Your task to perform on an android device: open wifi settings Image 0: 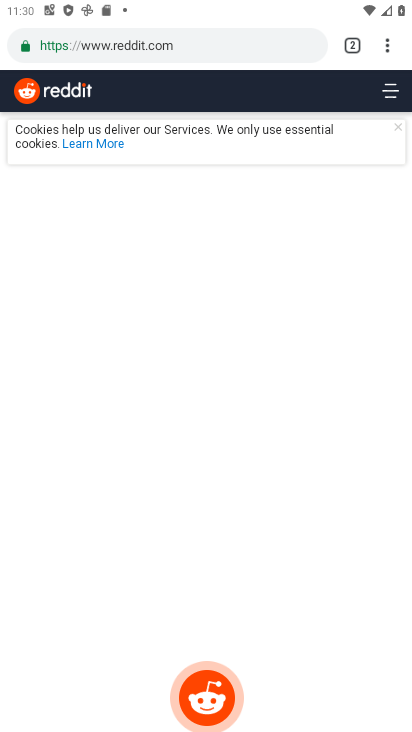
Step 0: press home button
Your task to perform on an android device: open wifi settings Image 1: 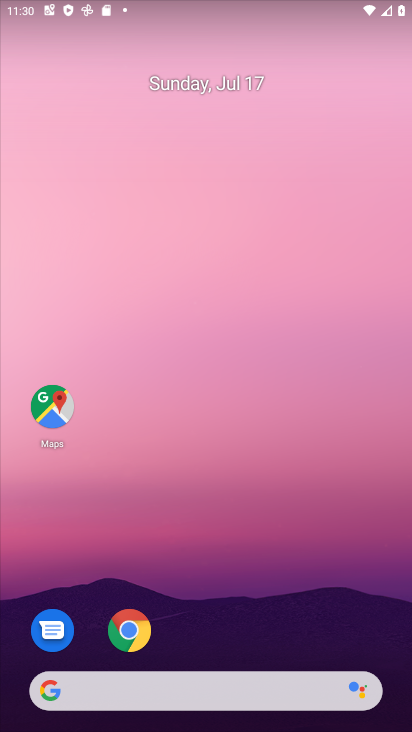
Step 1: drag from (266, 604) to (300, 92)
Your task to perform on an android device: open wifi settings Image 2: 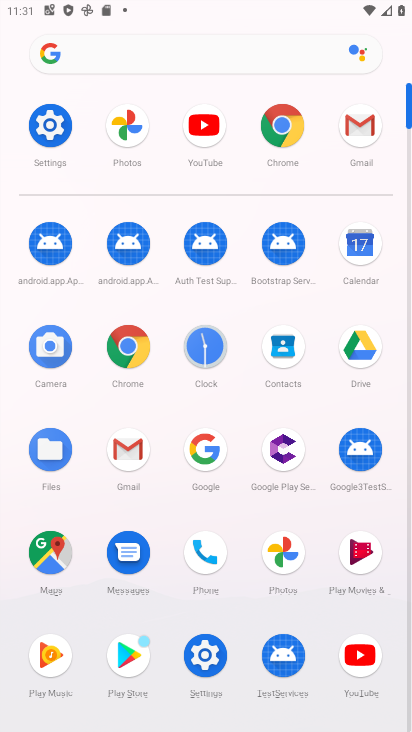
Step 2: click (55, 148)
Your task to perform on an android device: open wifi settings Image 3: 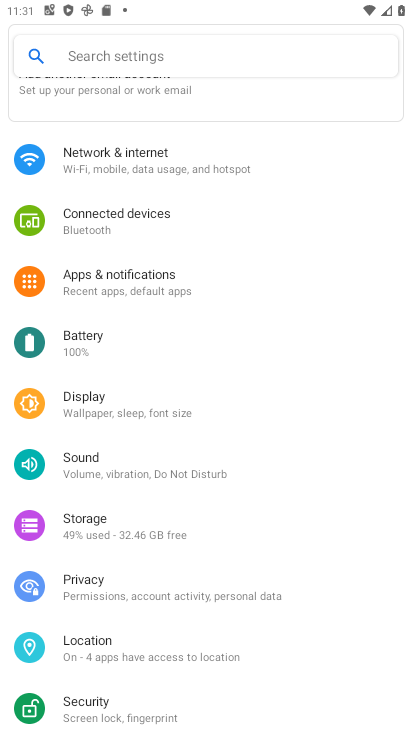
Step 3: click (215, 155)
Your task to perform on an android device: open wifi settings Image 4: 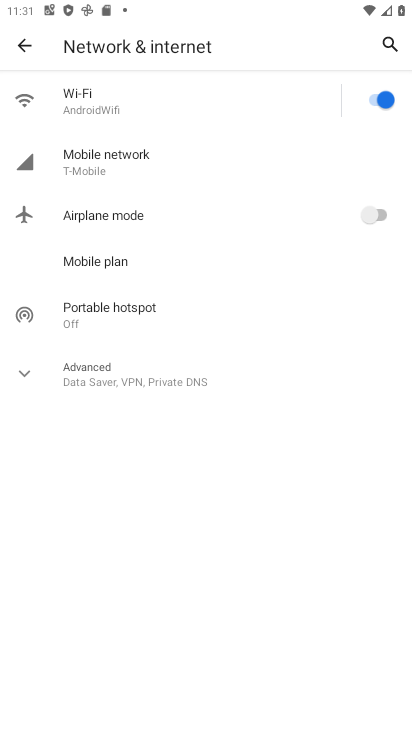
Step 4: task complete